Your task to perform on an android device: Open Google Chrome and click the shortcut for Amazon.com Image 0: 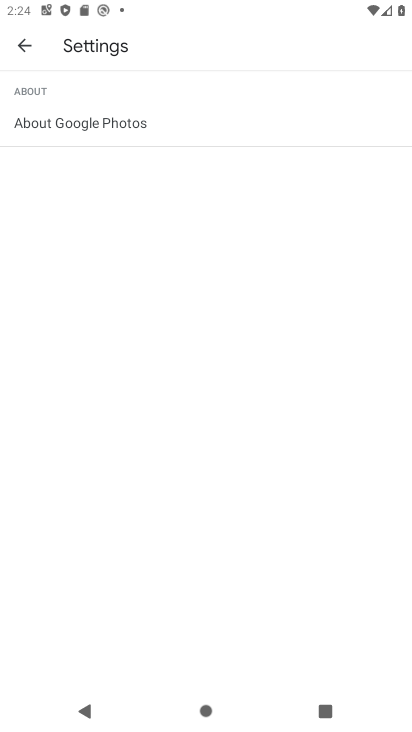
Step 0: press home button
Your task to perform on an android device: Open Google Chrome and click the shortcut for Amazon.com Image 1: 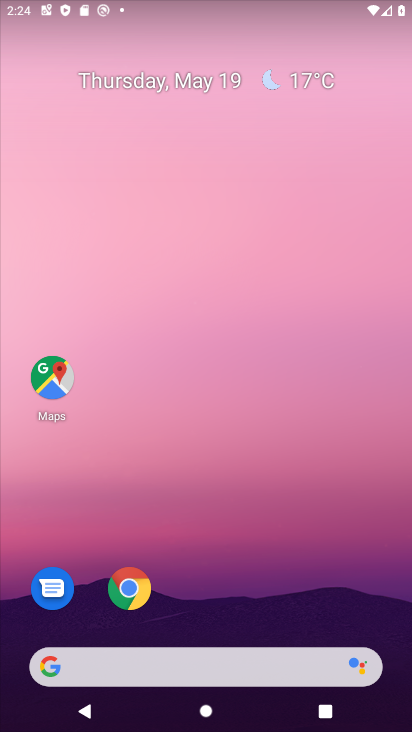
Step 1: click (125, 584)
Your task to perform on an android device: Open Google Chrome and click the shortcut for Amazon.com Image 2: 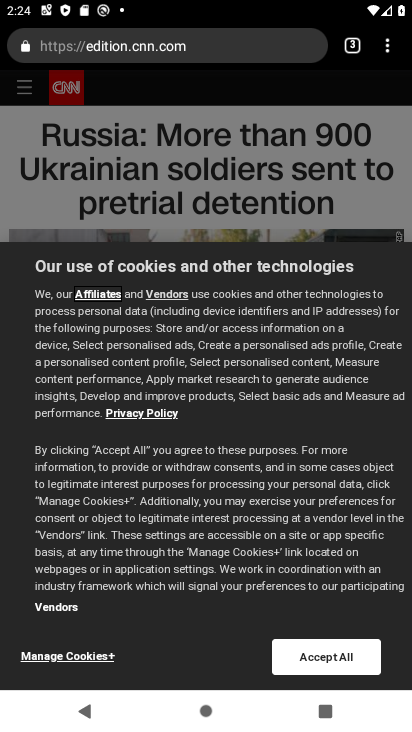
Step 2: click (242, 45)
Your task to perform on an android device: Open Google Chrome and click the shortcut for Amazon.com Image 3: 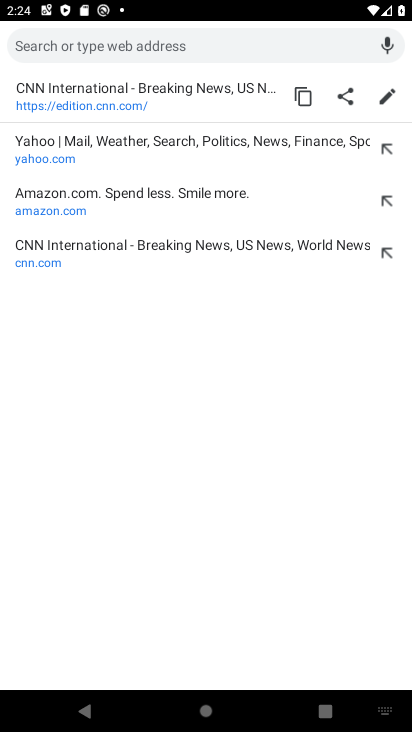
Step 3: click (65, 205)
Your task to perform on an android device: Open Google Chrome and click the shortcut for Amazon.com Image 4: 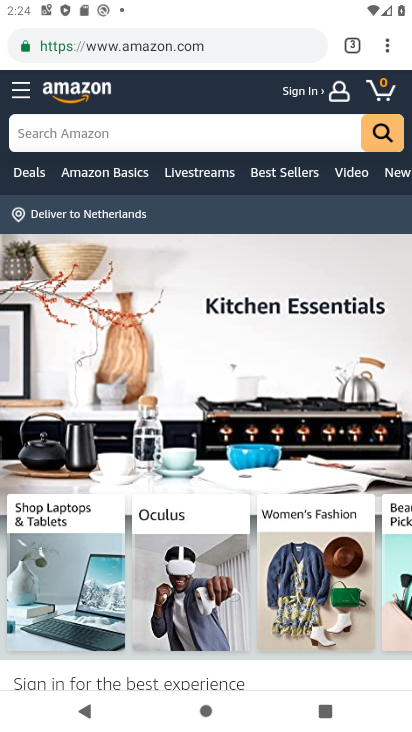
Step 4: task complete